Your task to perform on an android device: delete a single message in the gmail app Image 0: 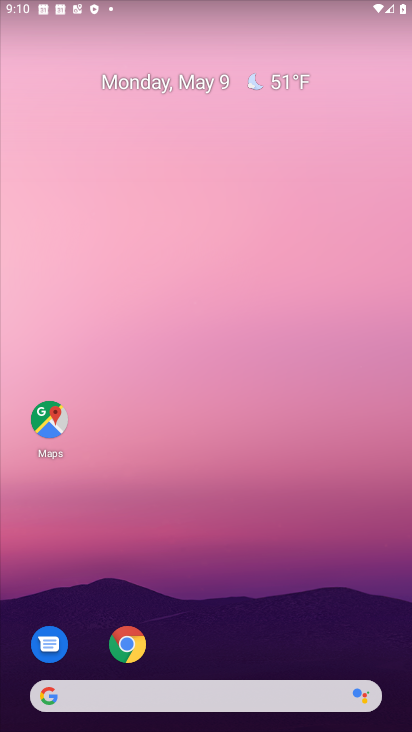
Step 0: drag from (191, 676) to (408, 16)
Your task to perform on an android device: delete a single message in the gmail app Image 1: 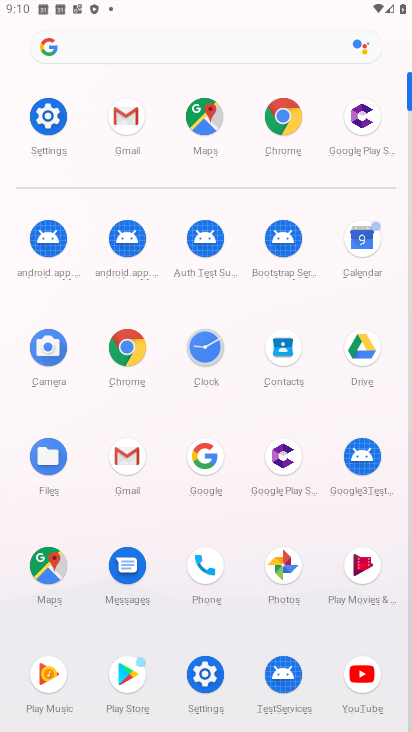
Step 1: click (127, 467)
Your task to perform on an android device: delete a single message in the gmail app Image 2: 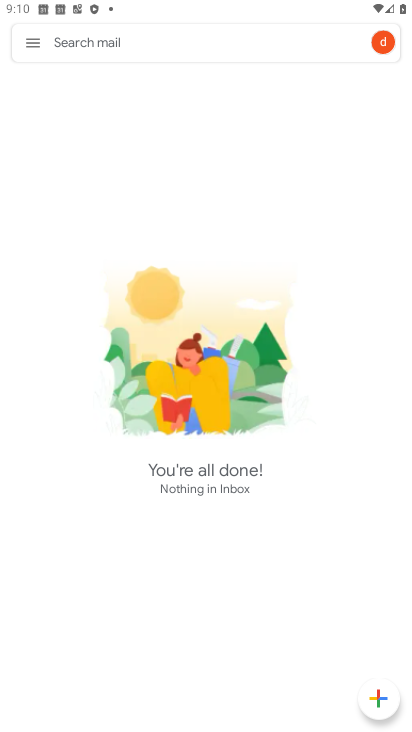
Step 2: click (21, 45)
Your task to perform on an android device: delete a single message in the gmail app Image 3: 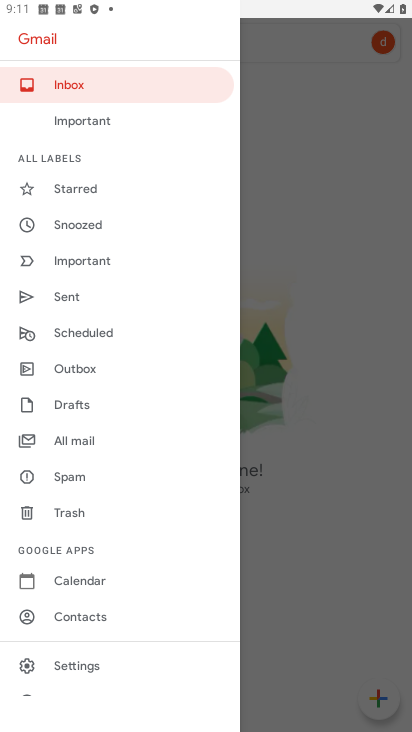
Step 3: drag from (81, 125) to (86, 697)
Your task to perform on an android device: delete a single message in the gmail app Image 4: 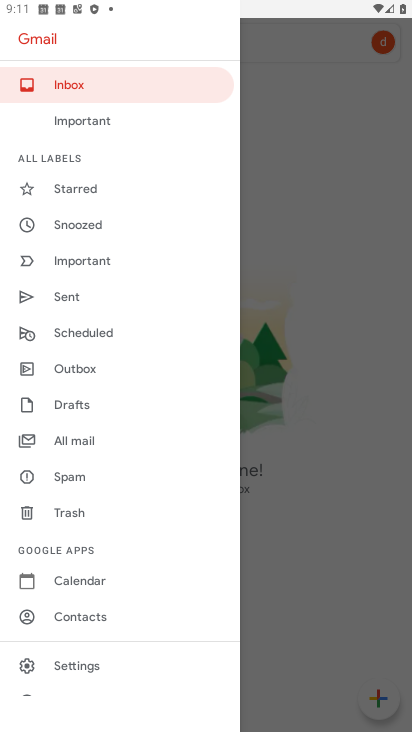
Step 4: click (91, 104)
Your task to perform on an android device: delete a single message in the gmail app Image 5: 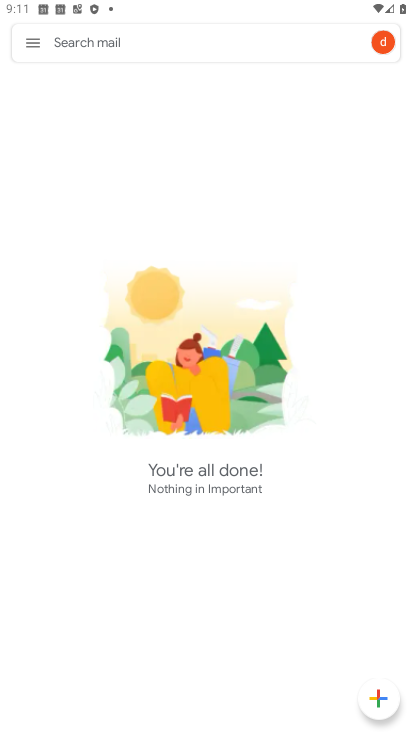
Step 5: task complete